Your task to perform on an android device: turn off smart reply in the gmail app Image 0: 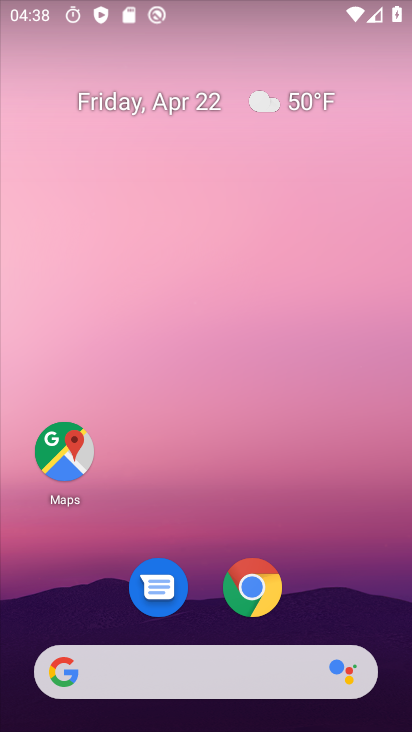
Step 0: drag from (358, 601) to (341, 55)
Your task to perform on an android device: turn off smart reply in the gmail app Image 1: 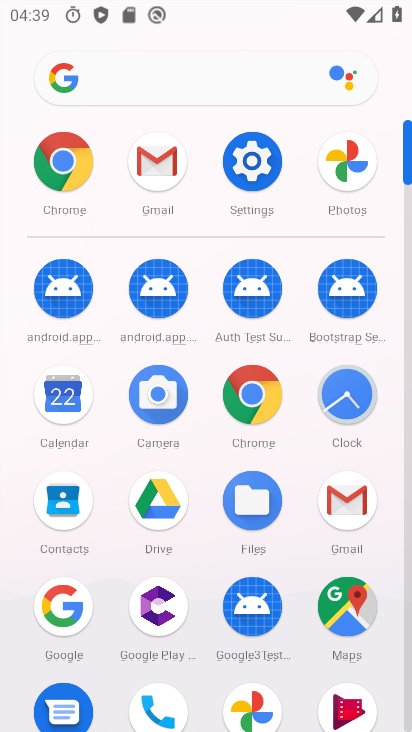
Step 1: click (152, 169)
Your task to perform on an android device: turn off smart reply in the gmail app Image 2: 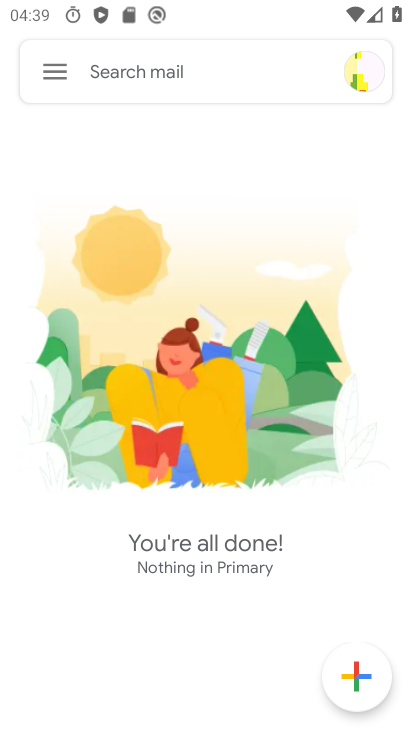
Step 2: click (56, 70)
Your task to perform on an android device: turn off smart reply in the gmail app Image 3: 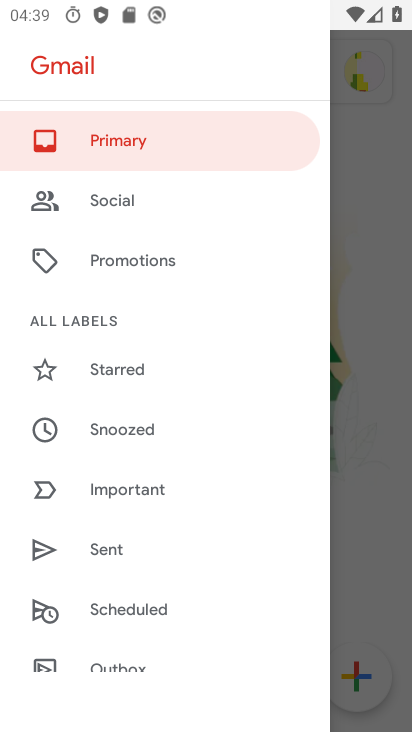
Step 3: drag from (176, 522) to (165, 177)
Your task to perform on an android device: turn off smart reply in the gmail app Image 4: 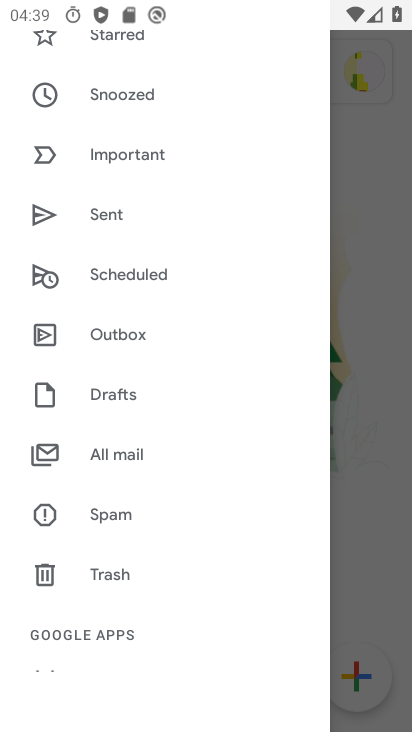
Step 4: drag from (152, 586) to (170, 264)
Your task to perform on an android device: turn off smart reply in the gmail app Image 5: 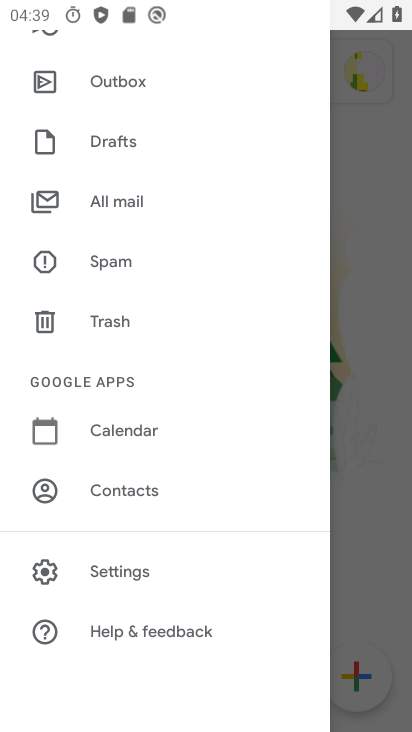
Step 5: click (113, 570)
Your task to perform on an android device: turn off smart reply in the gmail app Image 6: 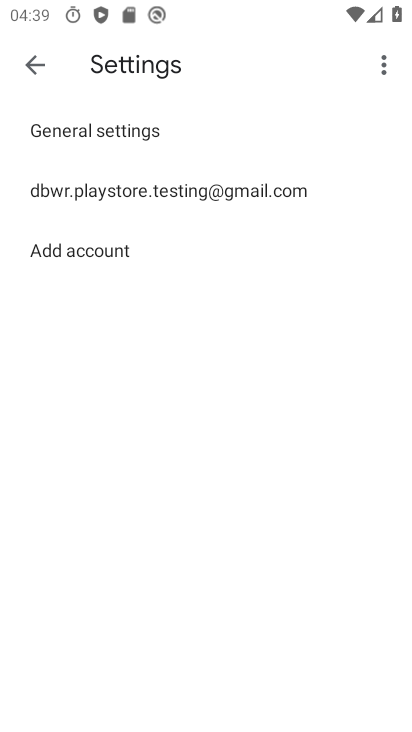
Step 6: click (113, 199)
Your task to perform on an android device: turn off smart reply in the gmail app Image 7: 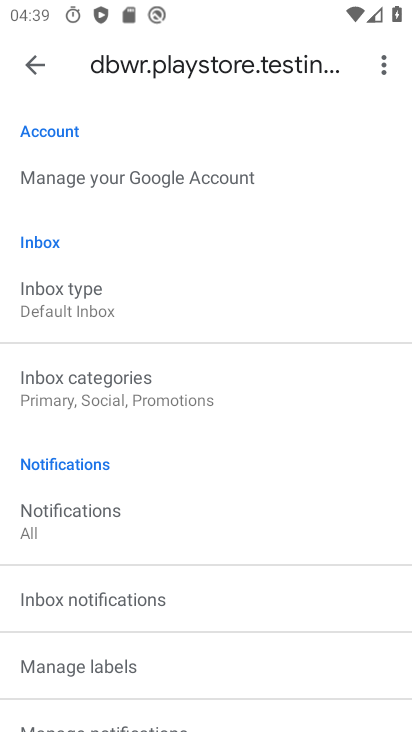
Step 7: drag from (219, 528) to (220, 208)
Your task to perform on an android device: turn off smart reply in the gmail app Image 8: 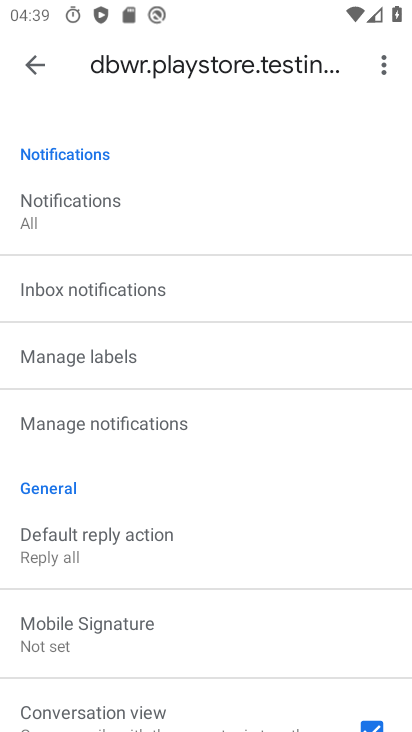
Step 8: drag from (215, 526) to (193, 200)
Your task to perform on an android device: turn off smart reply in the gmail app Image 9: 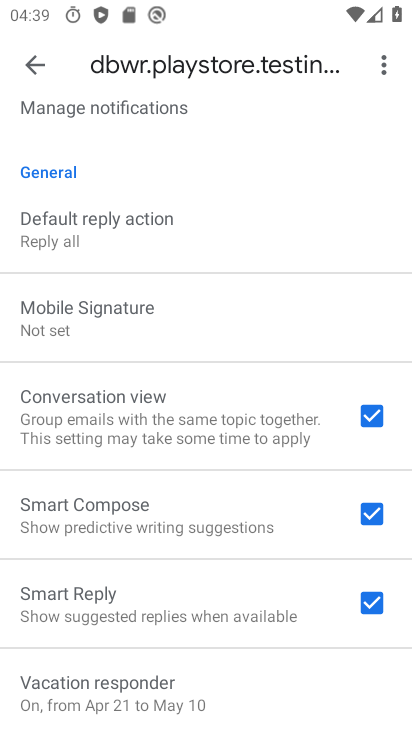
Step 9: click (367, 609)
Your task to perform on an android device: turn off smart reply in the gmail app Image 10: 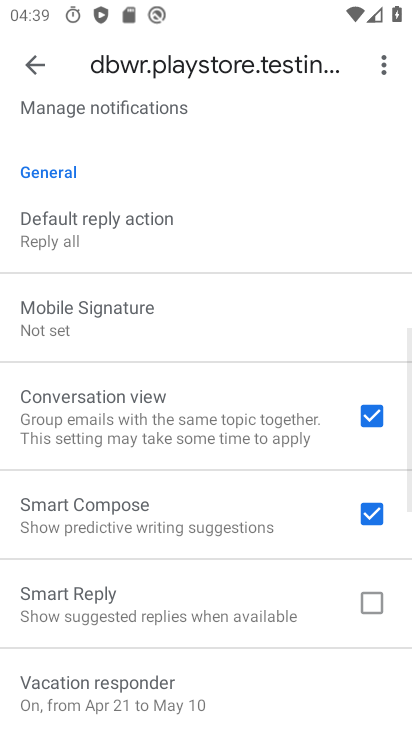
Step 10: task complete